Your task to perform on an android device: Open Google Image 0: 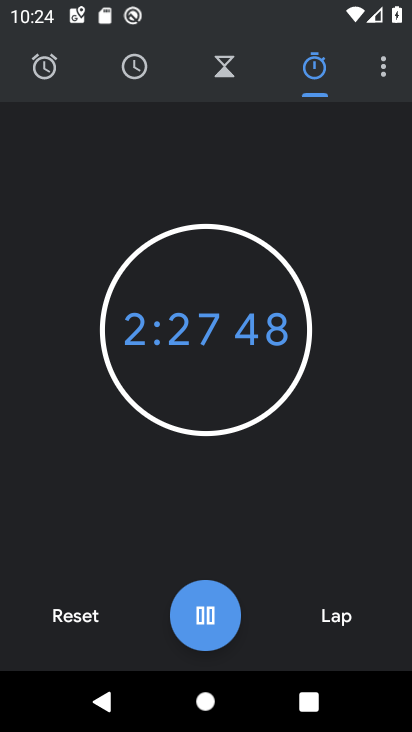
Step 0: click (201, 621)
Your task to perform on an android device: Open Google Image 1: 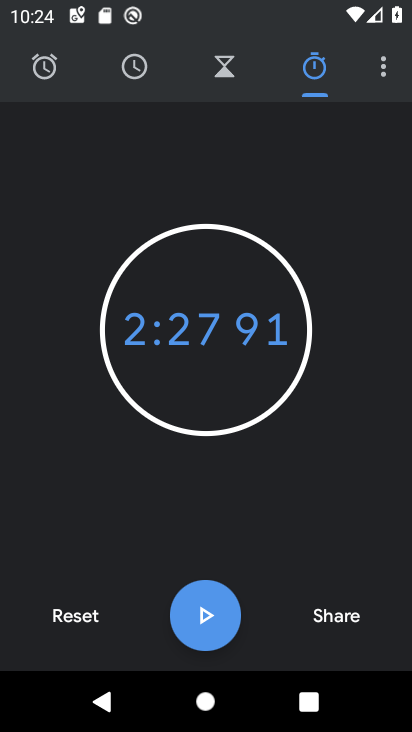
Step 1: press home button
Your task to perform on an android device: Open Google Image 2: 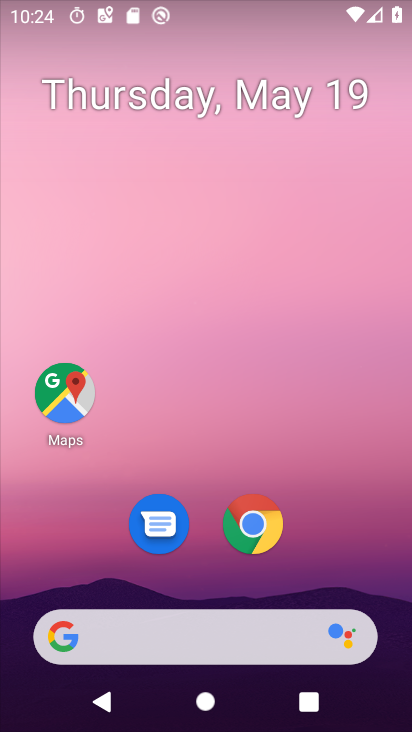
Step 2: click (202, 639)
Your task to perform on an android device: Open Google Image 3: 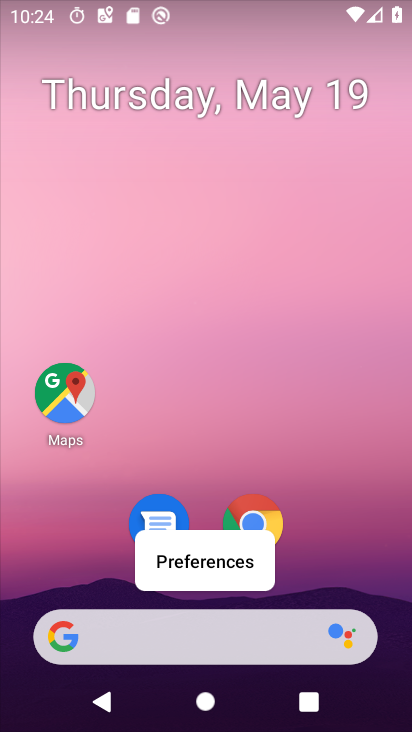
Step 3: click (137, 650)
Your task to perform on an android device: Open Google Image 4: 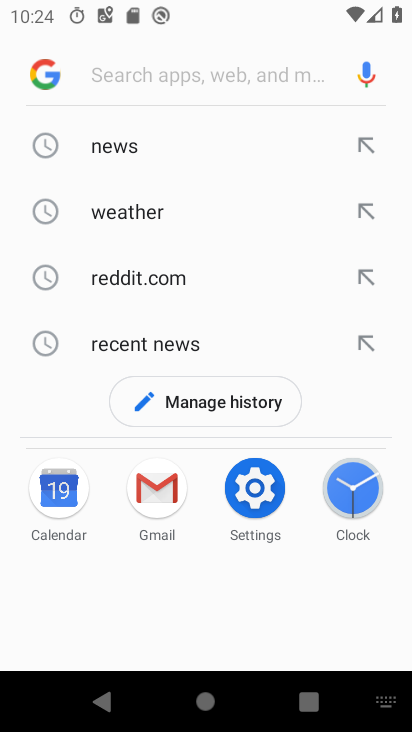
Step 4: click (50, 69)
Your task to perform on an android device: Open Google Image 5: 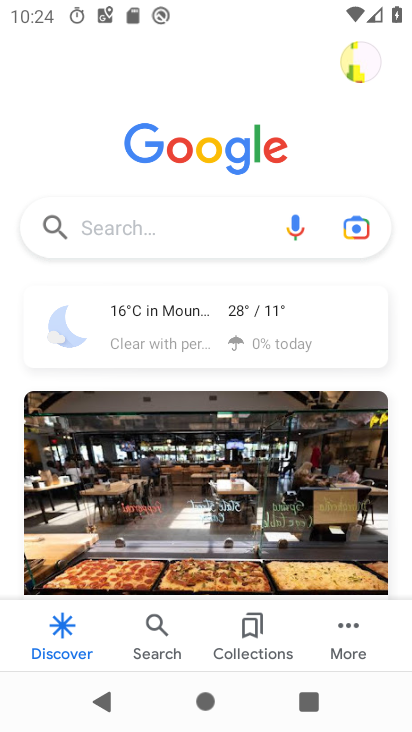
Step 5: task complete